Your task to perform on an android device: allow notifications from all sites in the chrome app Image 0: 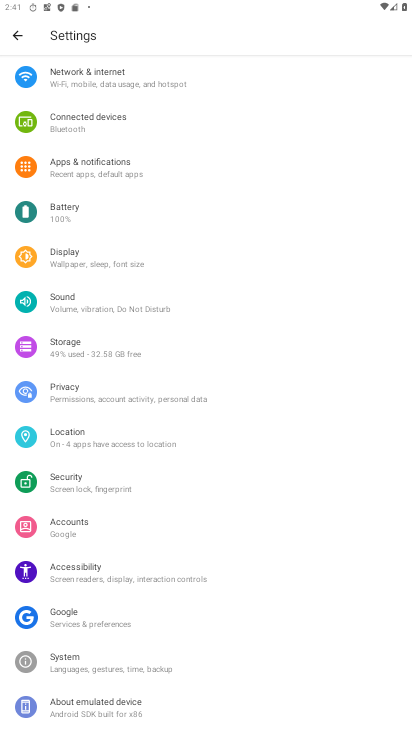
Step 0: press home button
Your task to perform on an android device: allow notifications from all sites in the chrome app Image 1: 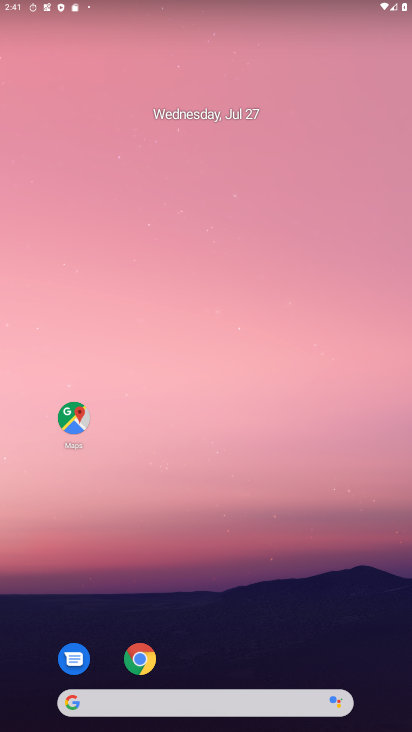
Step 1: drag from (223, 654) to (237, 93)
Your task to perform on an android device: allow notifications from all sites in the chrome app Image 2: 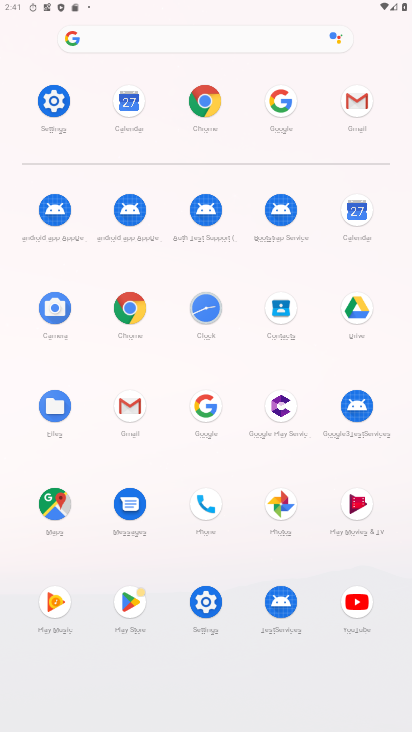
Step 2: click (125, 295)
Your task to perform on an android device: allow notifications from all sites in the chrome app Image 3: 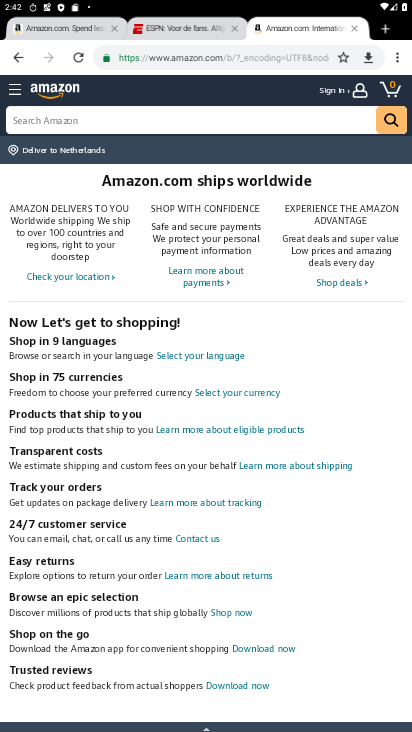
Step 3: click (395, 62)
Your task to perform on an android device: allow notifications from all sites in the chrome app Image 4: 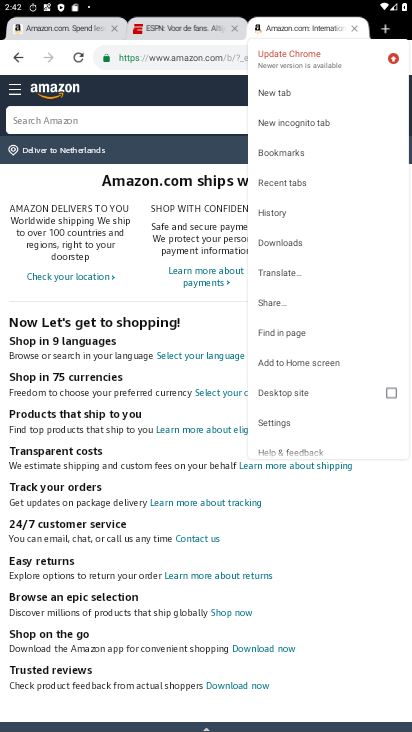
Step 4: click (279, 420)
Your task to perform on an android device: allow notifications from all sites in the chrome app Image 5: 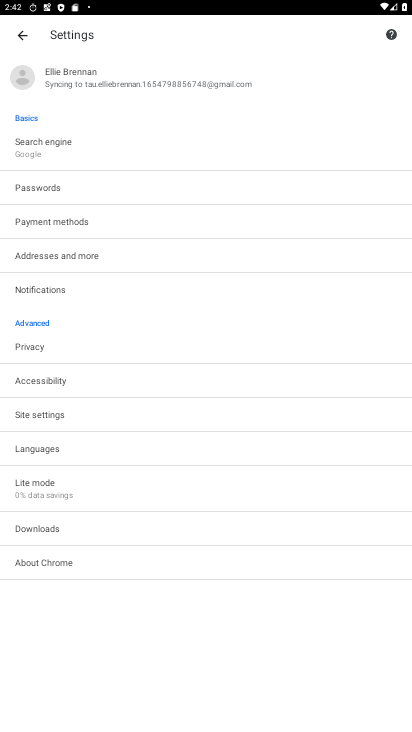
Step 5: click (40, 411)
Your task to perform on an android device: allow notifications from all sites in the chrome app Image 6: 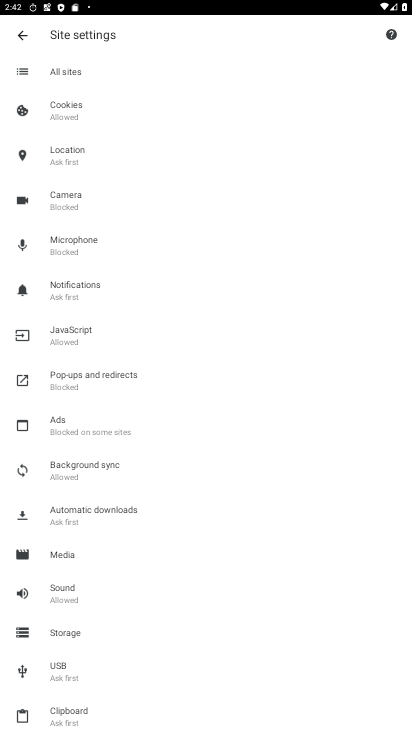
Step 6: click (63, 290)
Your task to perform on an android device: allow notifications from all sites in the chrome app Image 7: 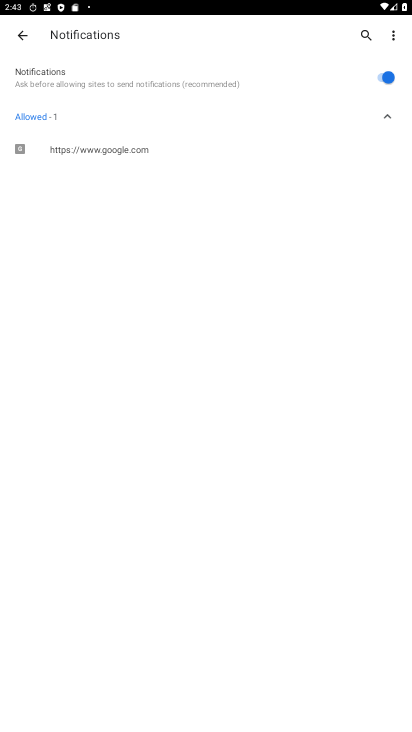
Step 7: task complete